Your task to perform on an android device: see tabs open on other devices in the chrome app Image 0: 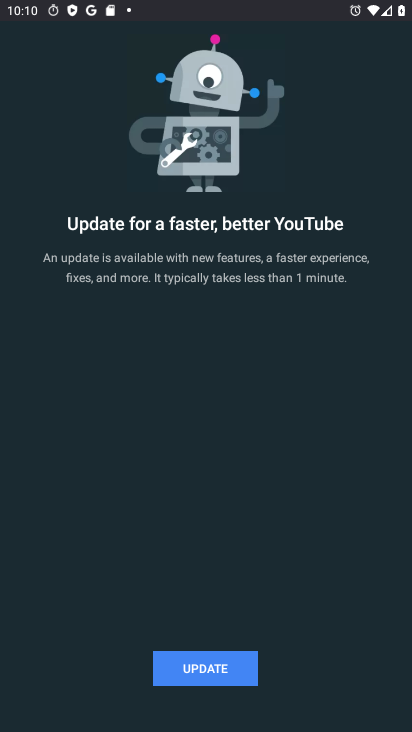
Step 0: press home button
Your task to perform on an android device: see tabs open on other devices in the chrome app Image 1: 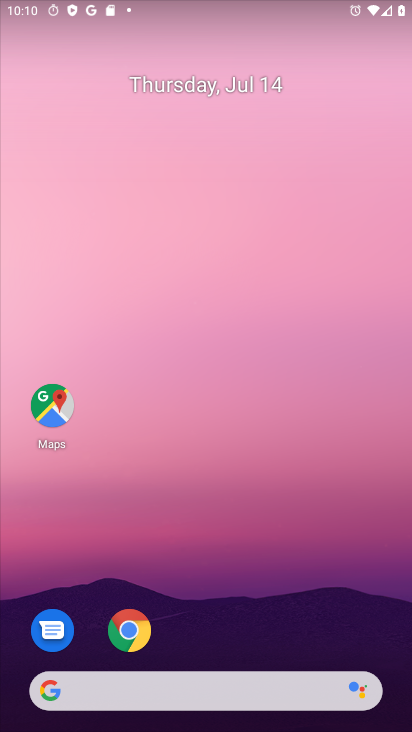
Step 1: click (123, 631)
Your task to perform on an android device: see tabs open on other devices in the chrome app Image 2: 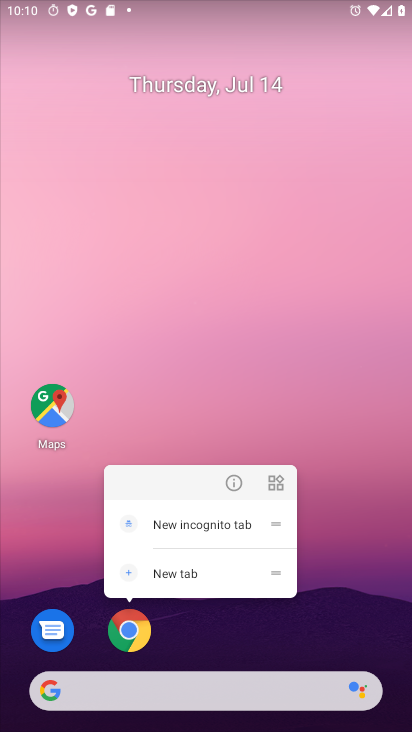
Step 2: click (126, 627)
Your task to perform on an android device: see tabs open on other devices in the chrome app Image 3: 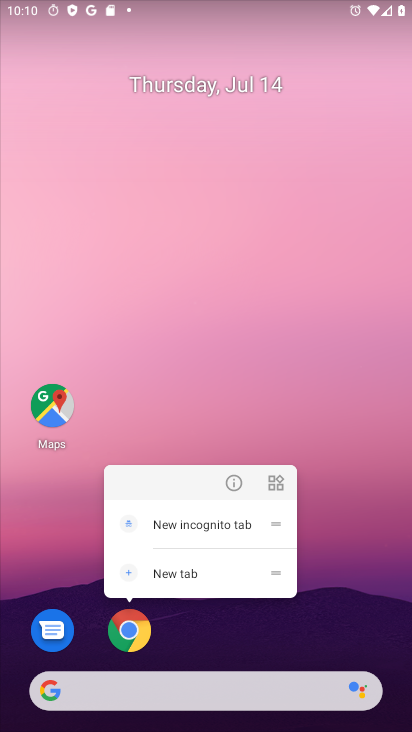
Step 3: click (127, 662)
Your task to perform on an android device: see tabs open on other devices in the chrome app Image 4: 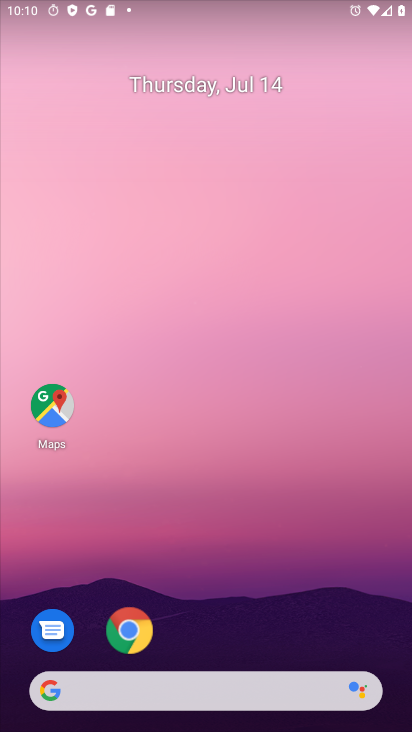
Step 4: click (130, 648)
Your task to perform on an android device: see tabs open on other devices in the chrome app Image 5: 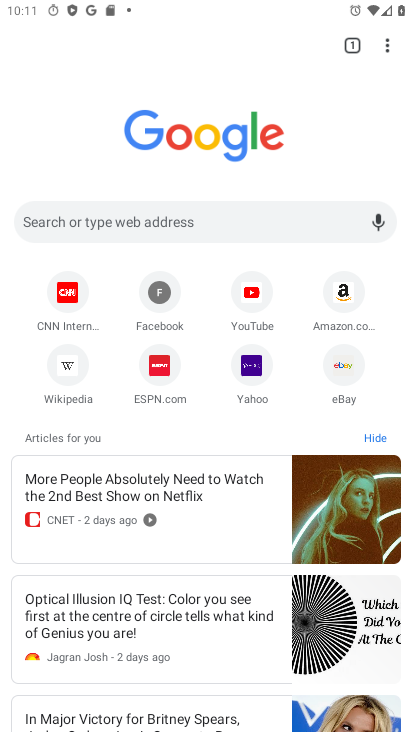
Step 5: click (388, 40)
Your task to perform on an android device: see tabs open on other devices in the chrome app Image 6: 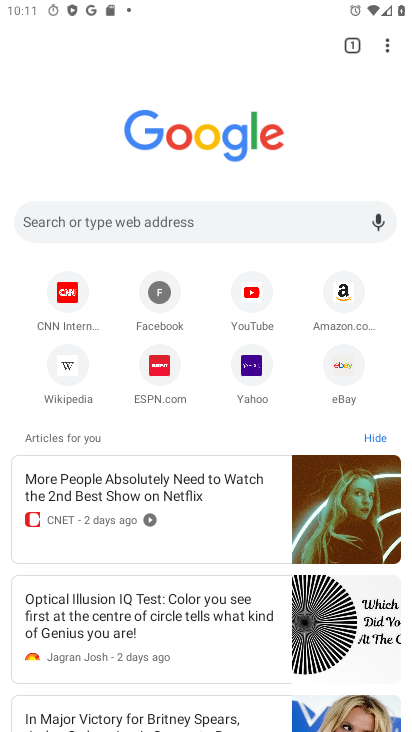
Step 6: click (388, 37)
Your task to perform on an android device: see tabs open on other devices in the chrome app Image 7: 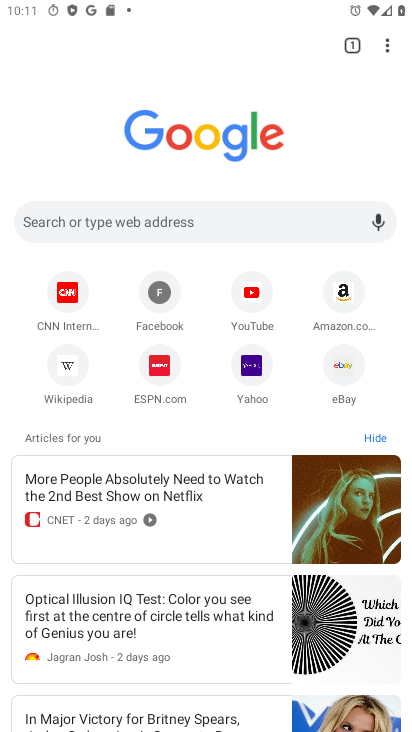
Step 7: click (387, 51)
Your task to perform on an android device: see tabs open on other devices in the chrome app Image 8: 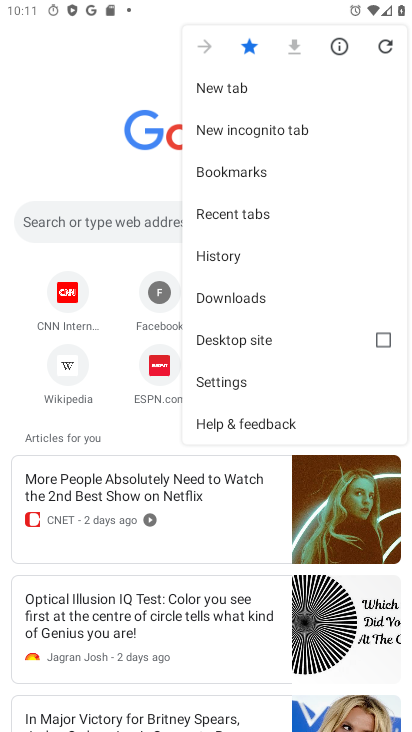
Step 8: click (251, 218)
Your task to perform on an android device: see tabs open on other devices in the chrome app Image 9: 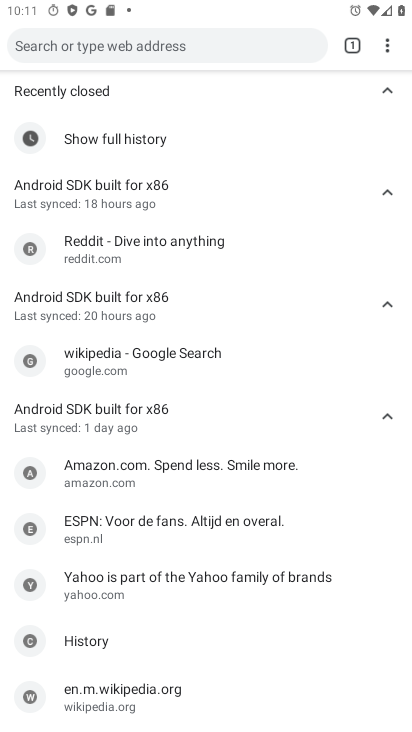
Step 9: task complete